Your task to perform on an android device: Add "jbl flip 4" to the cart on ebay Image 0: 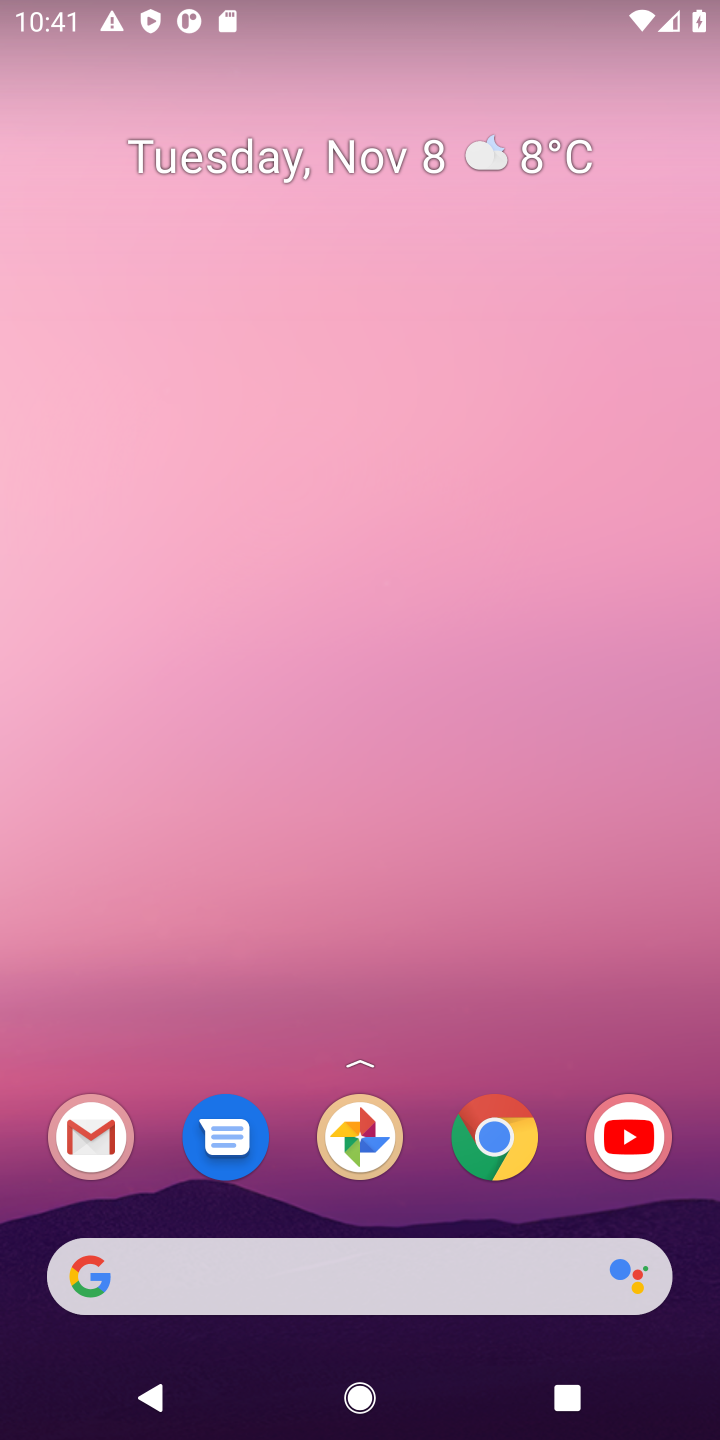
Step 0: click (487, 1152)
Your task to perform on an android device: Add "jbl flip 4" to the cart on ebay Image 1: 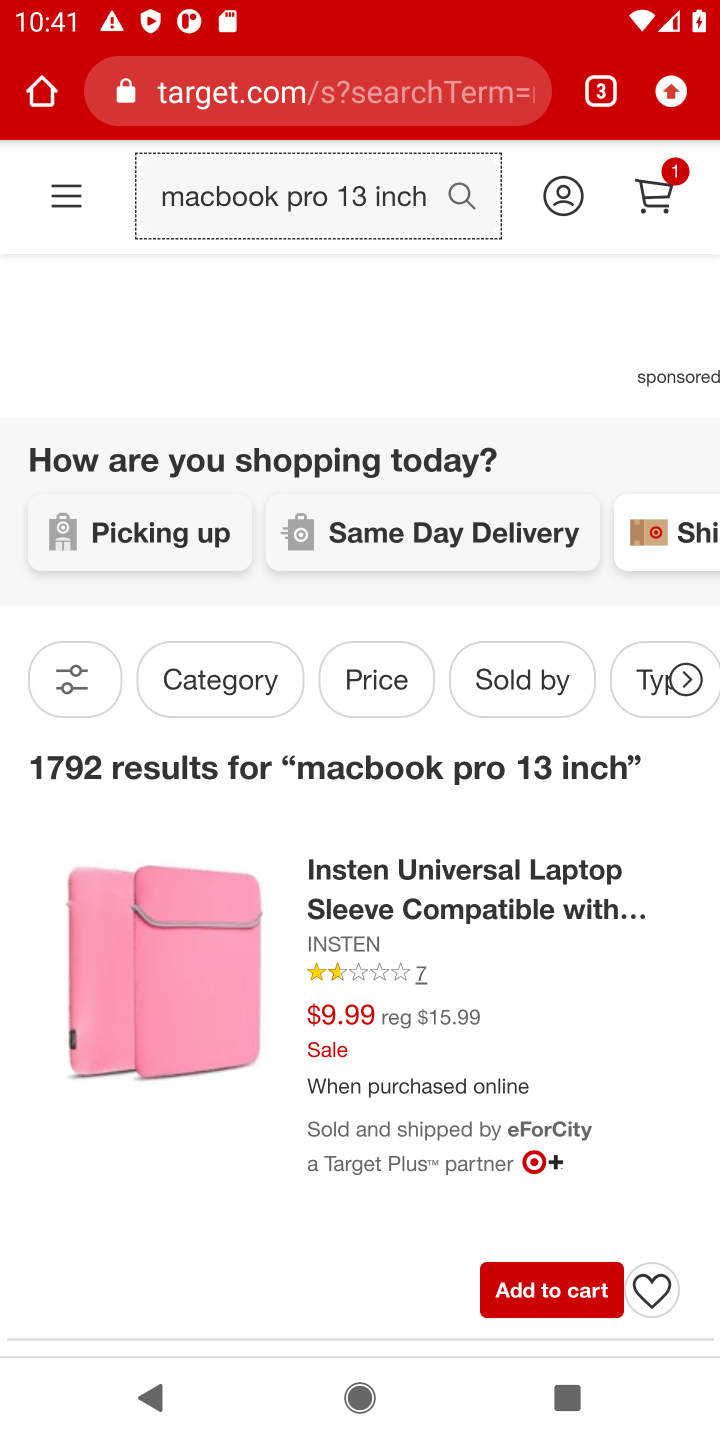
Step 1: click (613, 107)
Your task to perform on an android device: Add "jbl flip 4" to the cart on ebay Image 2: 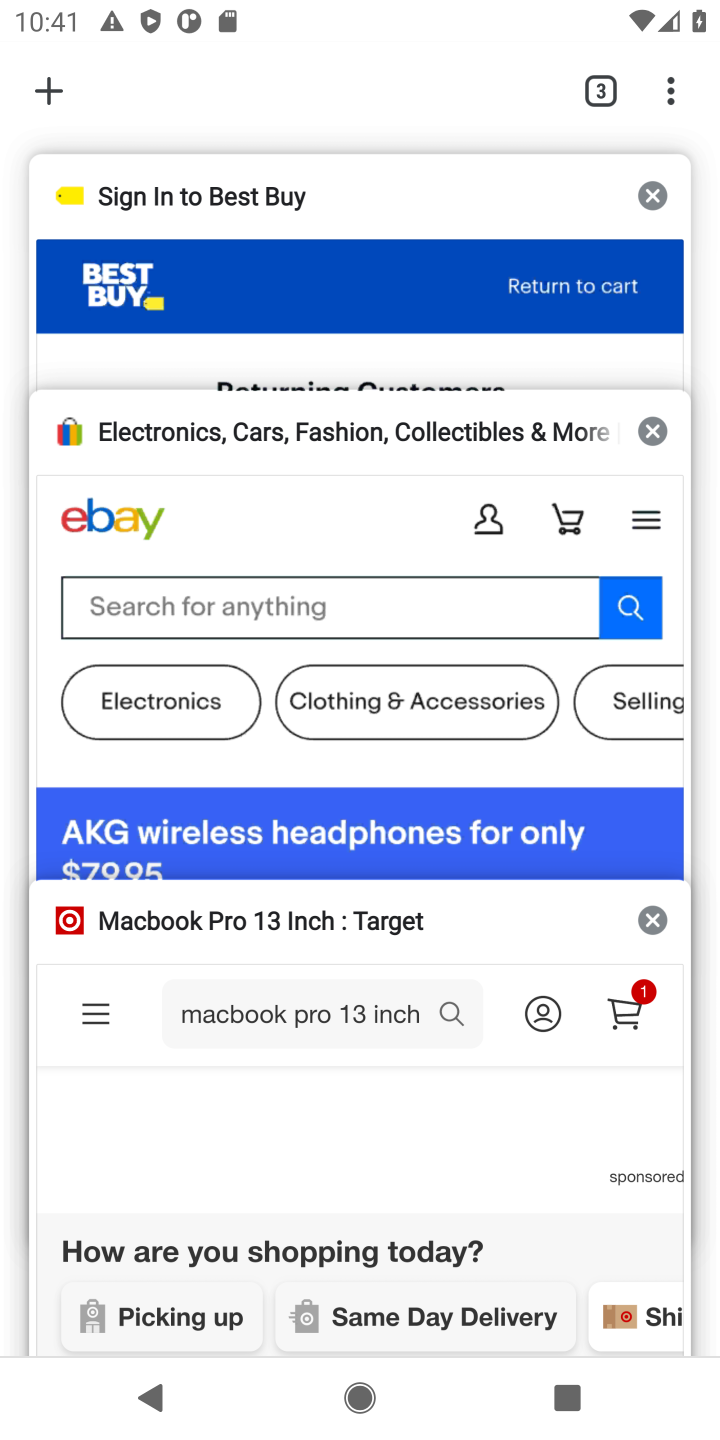
Step 2: click (271, 430)
Your task to perform on an android device: Add "jbl flip 4" to the cart on ebay Image 3: 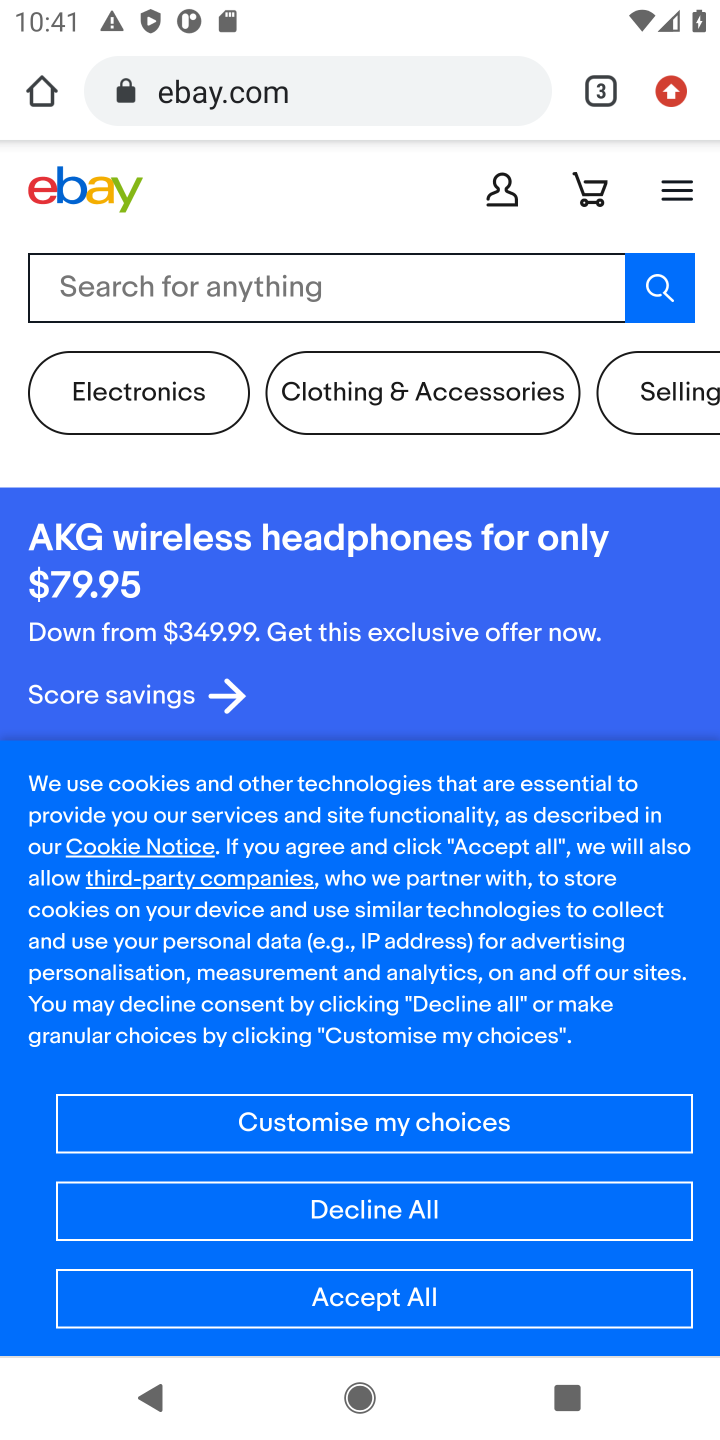
Step 3: click (421, 1208)
Your task to perform on an android device: Add "jbl flip 4" to the cart on ebay Image 4: 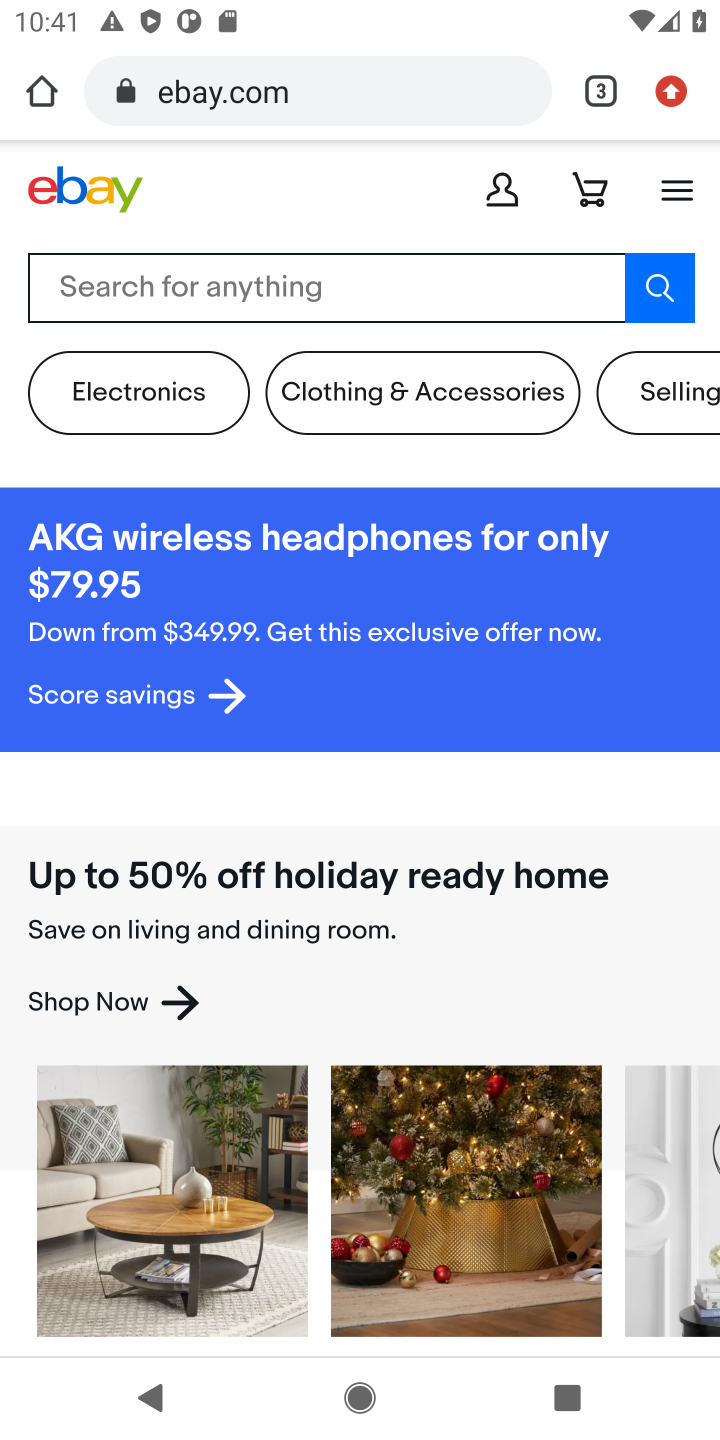
Step 4: click (283, 289)
Your task to perform on an android device: Add "jbl flip 4" to the cart on ebay Image 5: 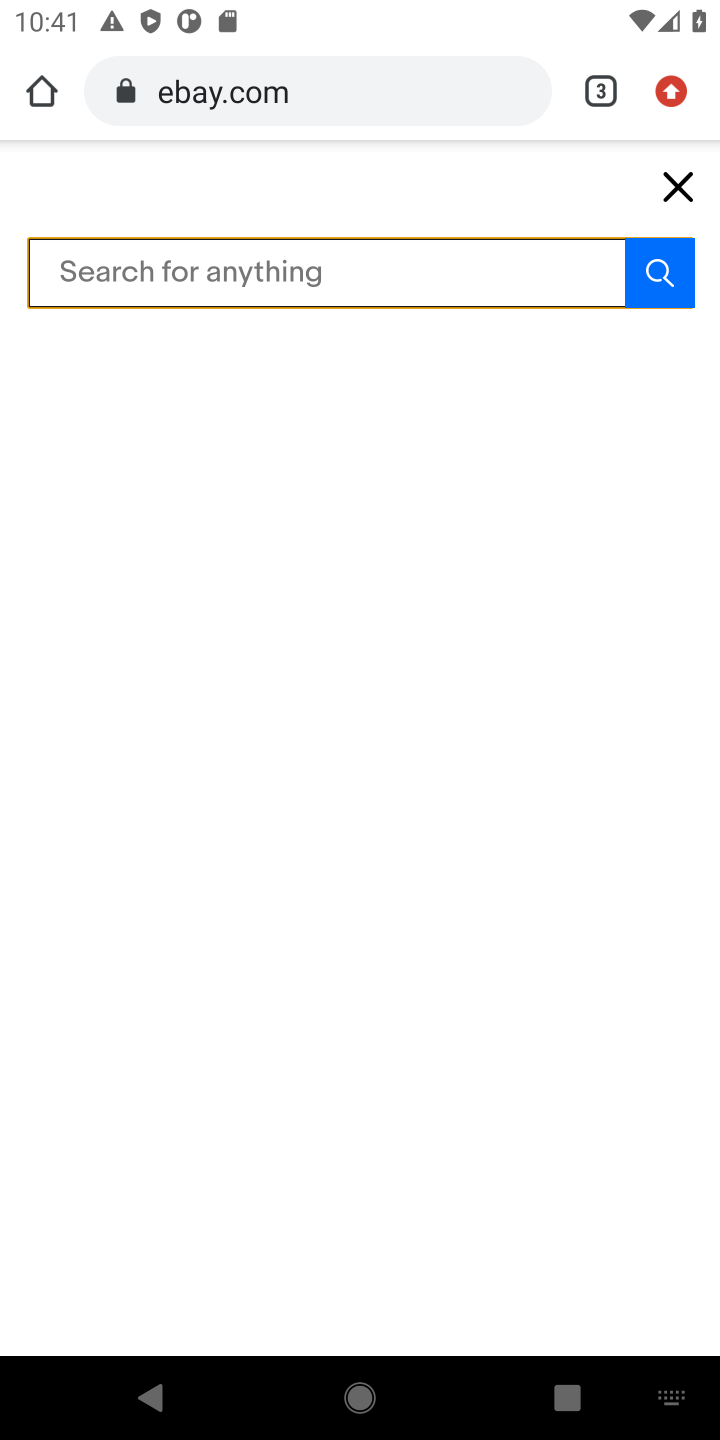
Step 5: type "jbl flip 4"
Your task to perform on an android device: Add "jbl flip 4" to the cart on ebay Image 6: 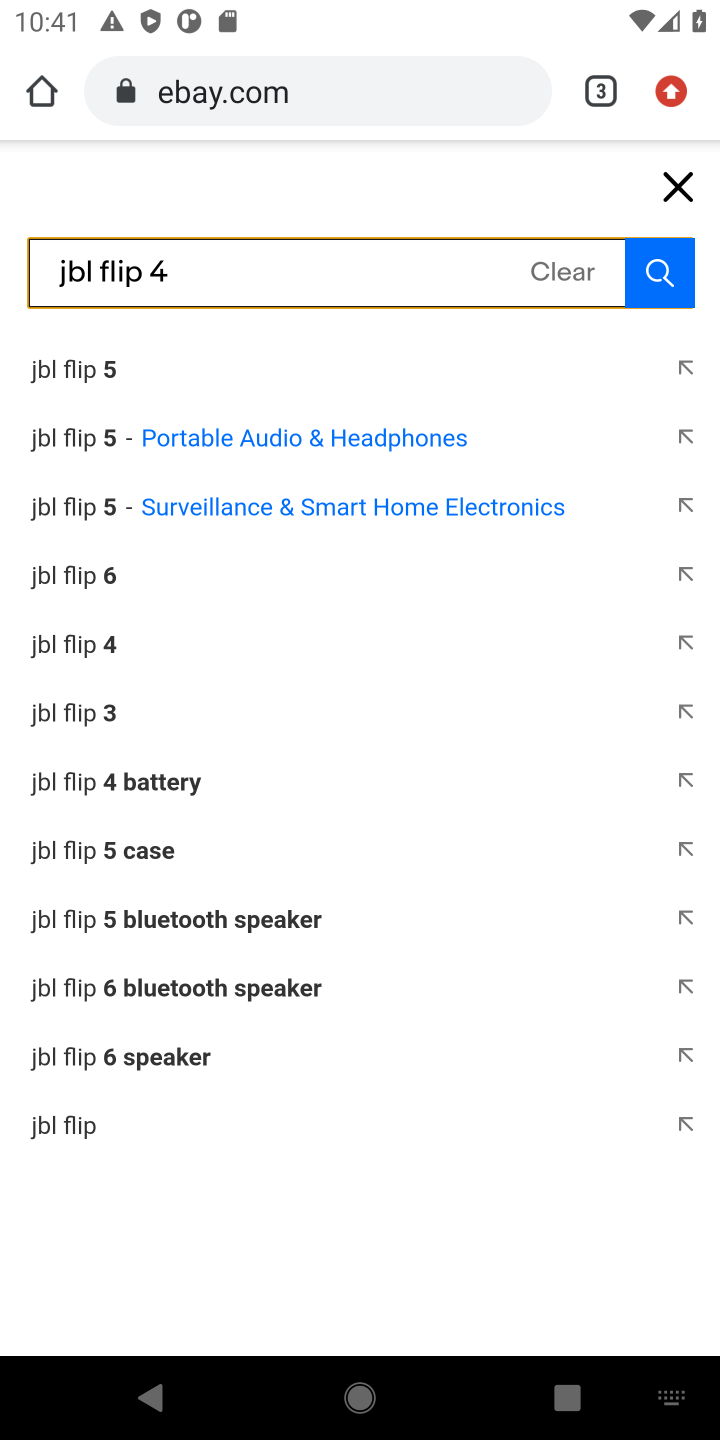
Step 6: click (89, 441)
Your task to perform on an android device: Add "jbl flip 4" to the cart on ebay Image 7: 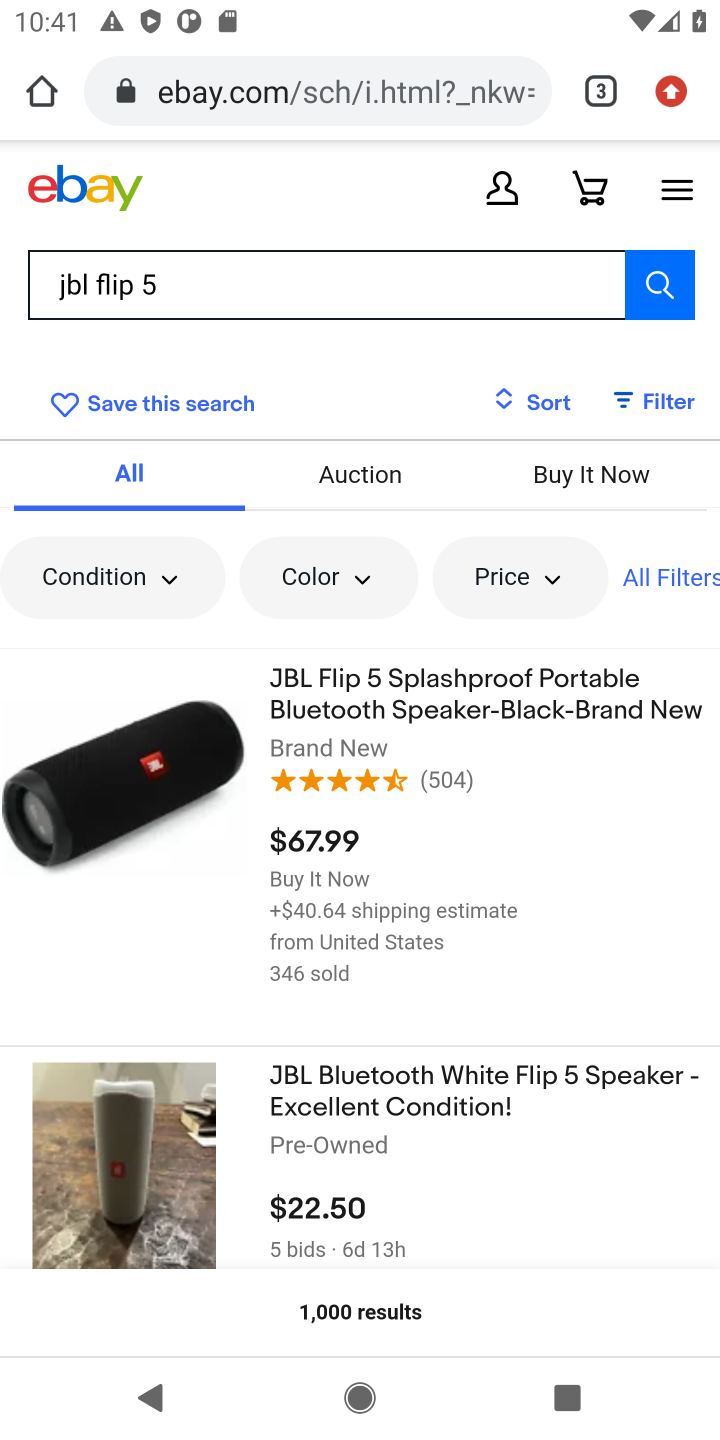
Step 7: click (492, 669)
Your task to perform on an android device: Add "jbl flip 4" to the cart on ebay Image 8: 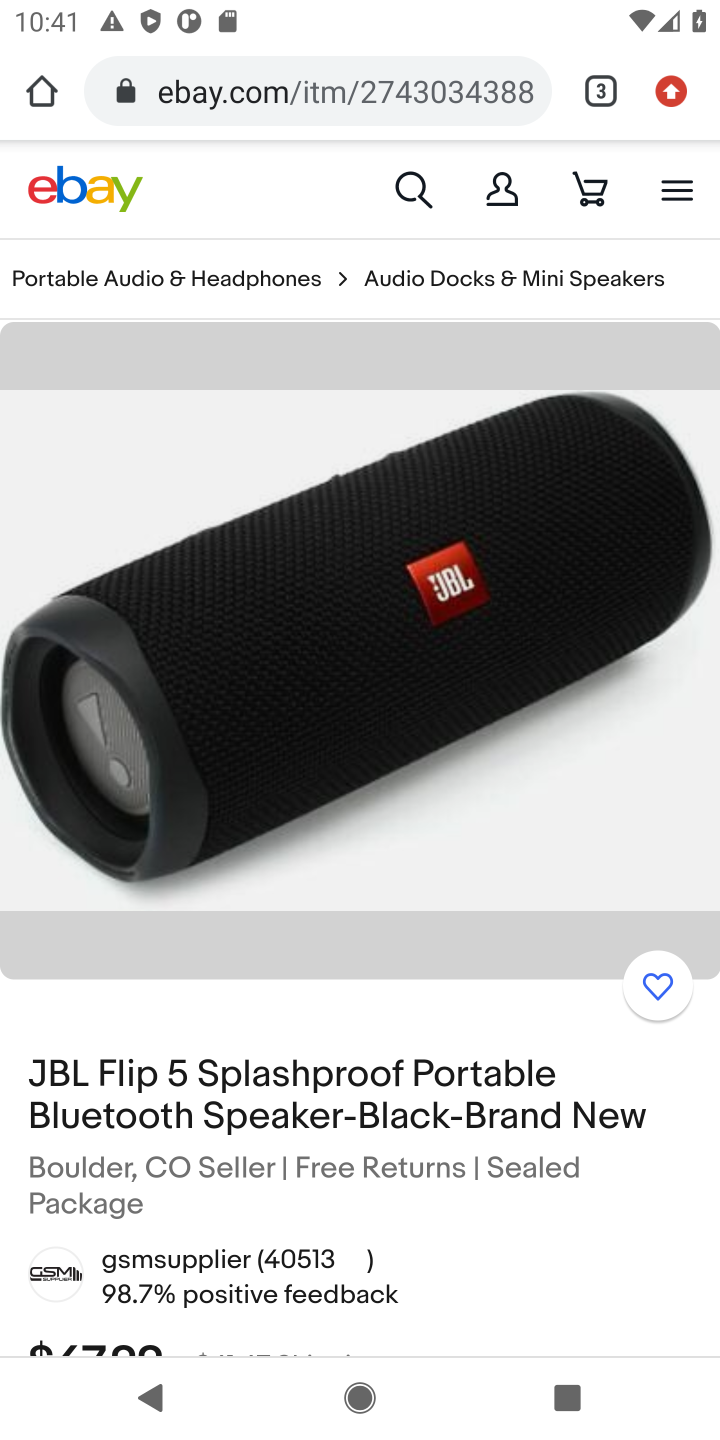
Step 8: drag from (449, 1223) to (650, 374)
Your task to perform on an android device: Add "jbl flip 4" to the cart on ebay Image 9: 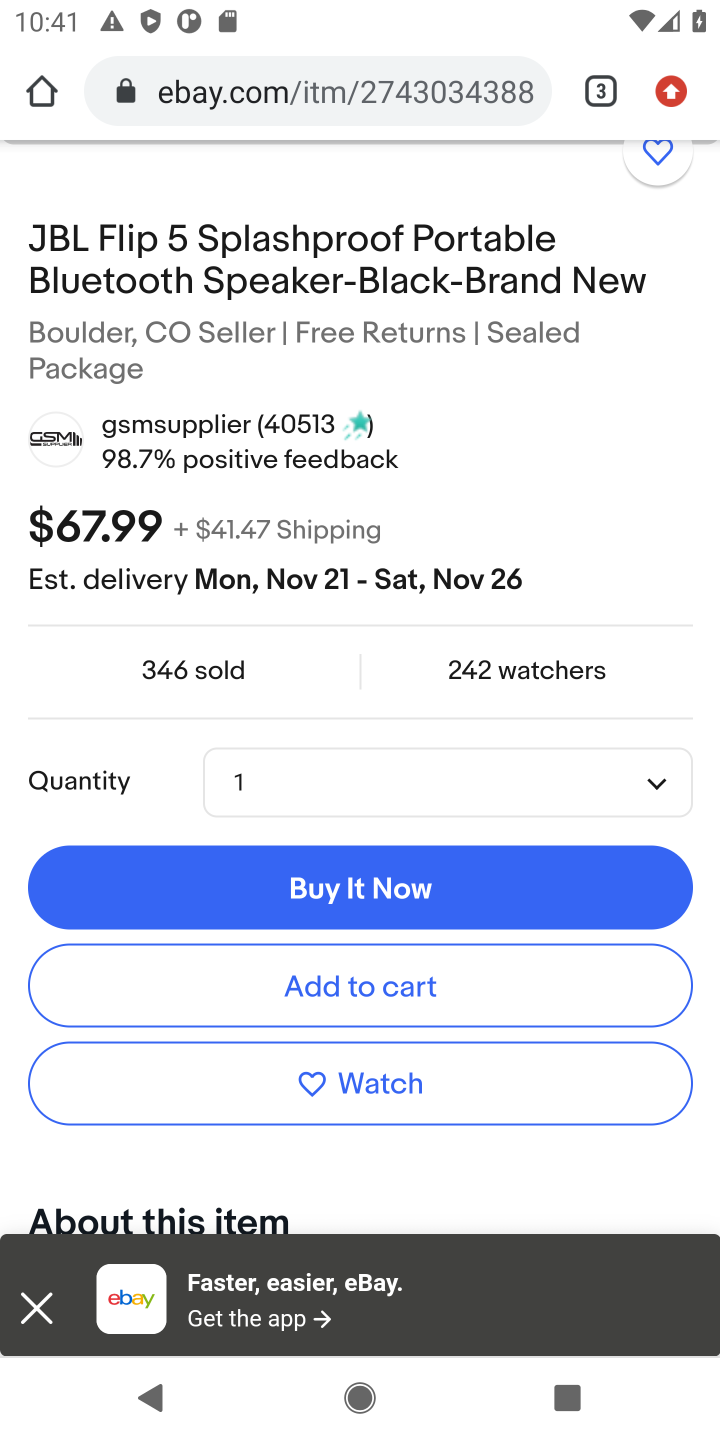
Step 9: click (426, 991)
Your task to perform on an android device: Add "jbl flip 4" to the cart on ebay Image 10: 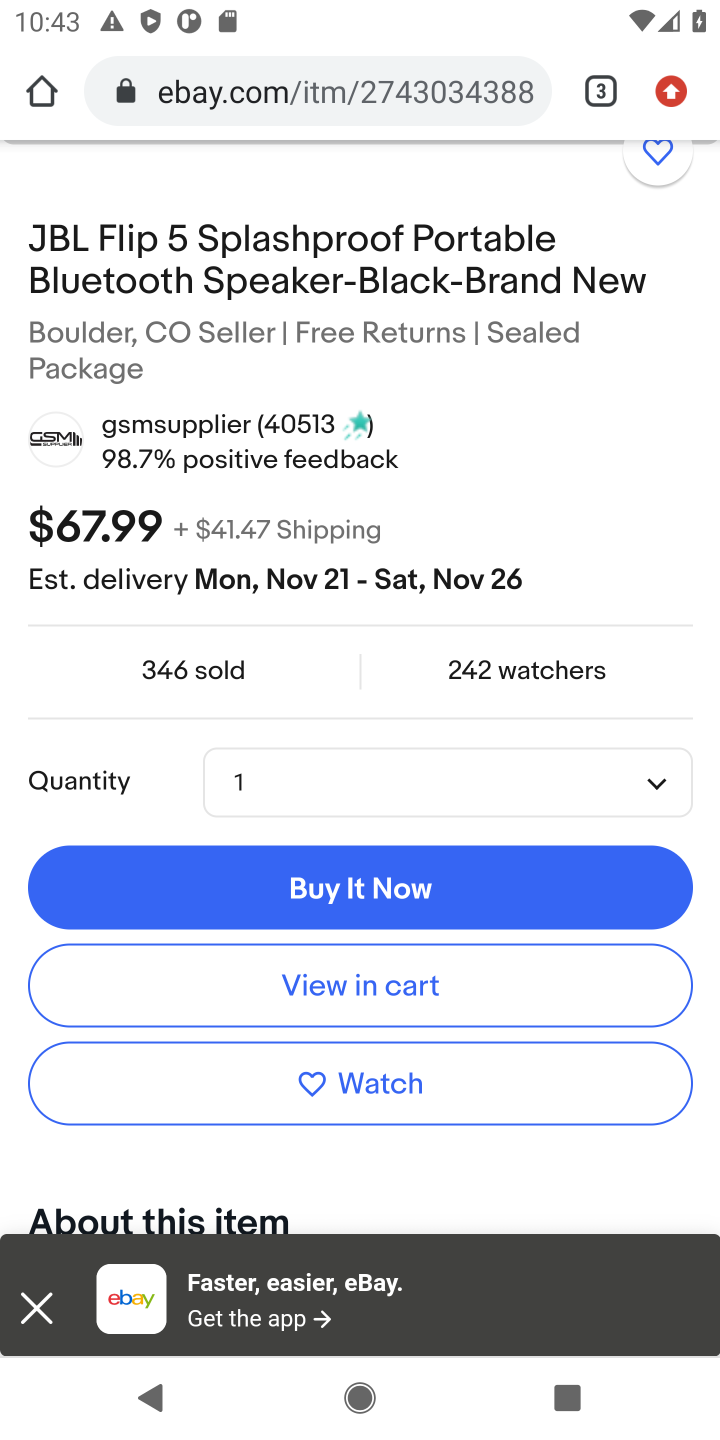
Step 10: task complete